Your task to perform on an android device: What's the weather today? Image 0: 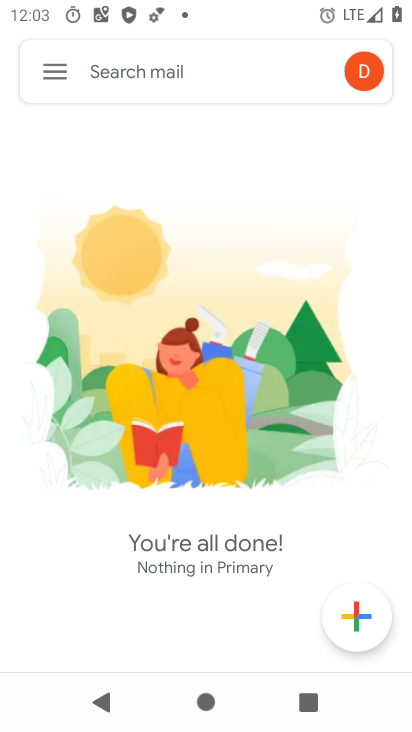
Step 0: press home button
Your task to perform on an android device: What's the weather today? Image 1: 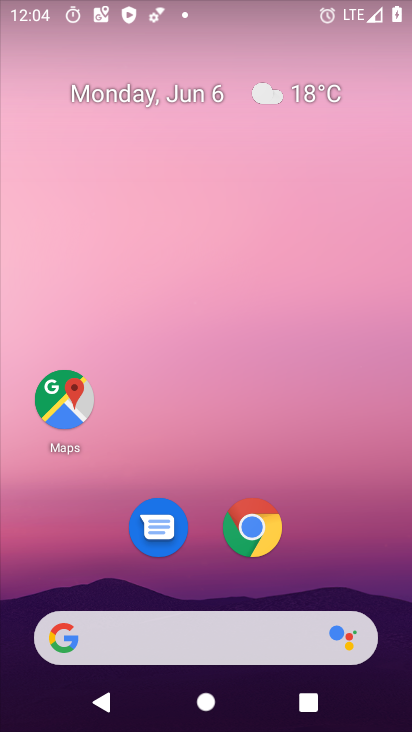
Step 1: click (318, 95)
Your task to perform on an android device: What's the weather today? Image 2: 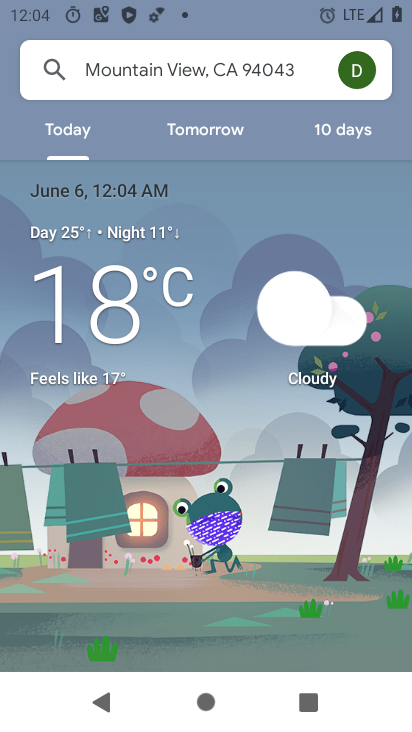
Step 2: task complete